Your task to perform on an android device: Check the weather Image 0: 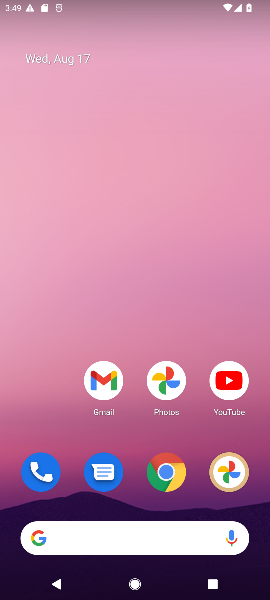
Step 0: click (101, 533)
Your task to perform on an android device: Check the weather Image 1: 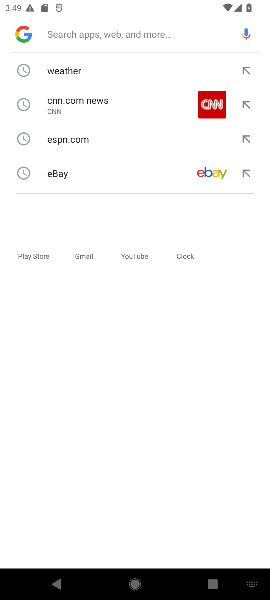
Step 1: click (65, 70)
Your task to perform on an android device: Check the weather Image 2: 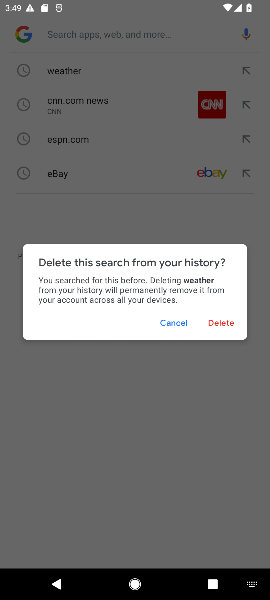
Step 2: click (175, 322)
Your task to perform on an android device: Check the weather Image 3: 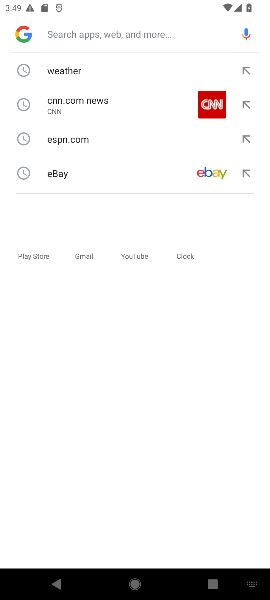
Step 3: click (78, 79)
Your task to perform on an android device: Check the weather Image 4: 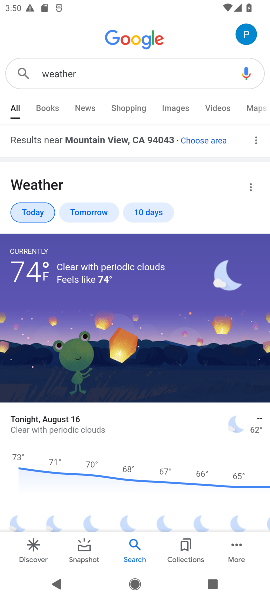
Step 4: task complete